Your task to perform on an android device: Open wifi settings Image 0: 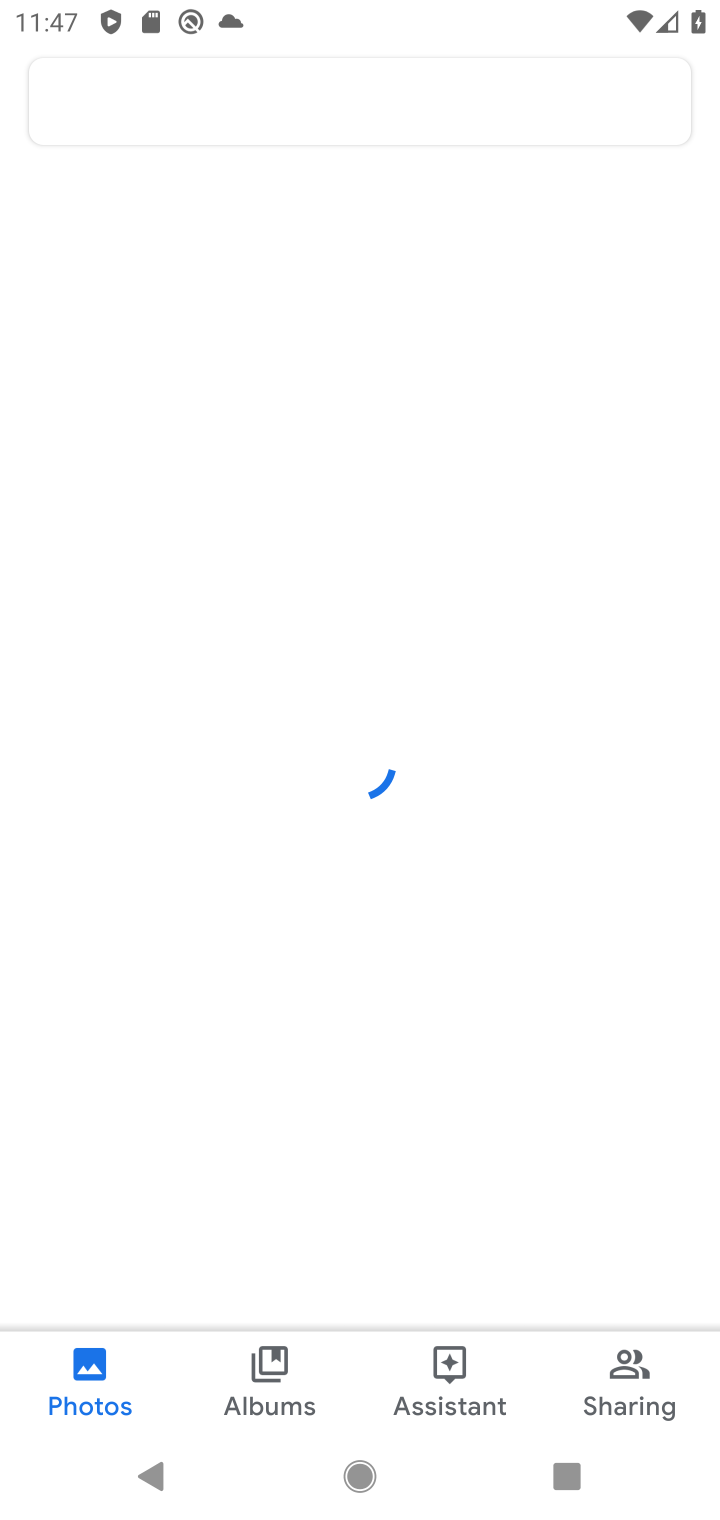
Step 0: press home button
Your task to perform on an android device: Open wifi settings Image 1: 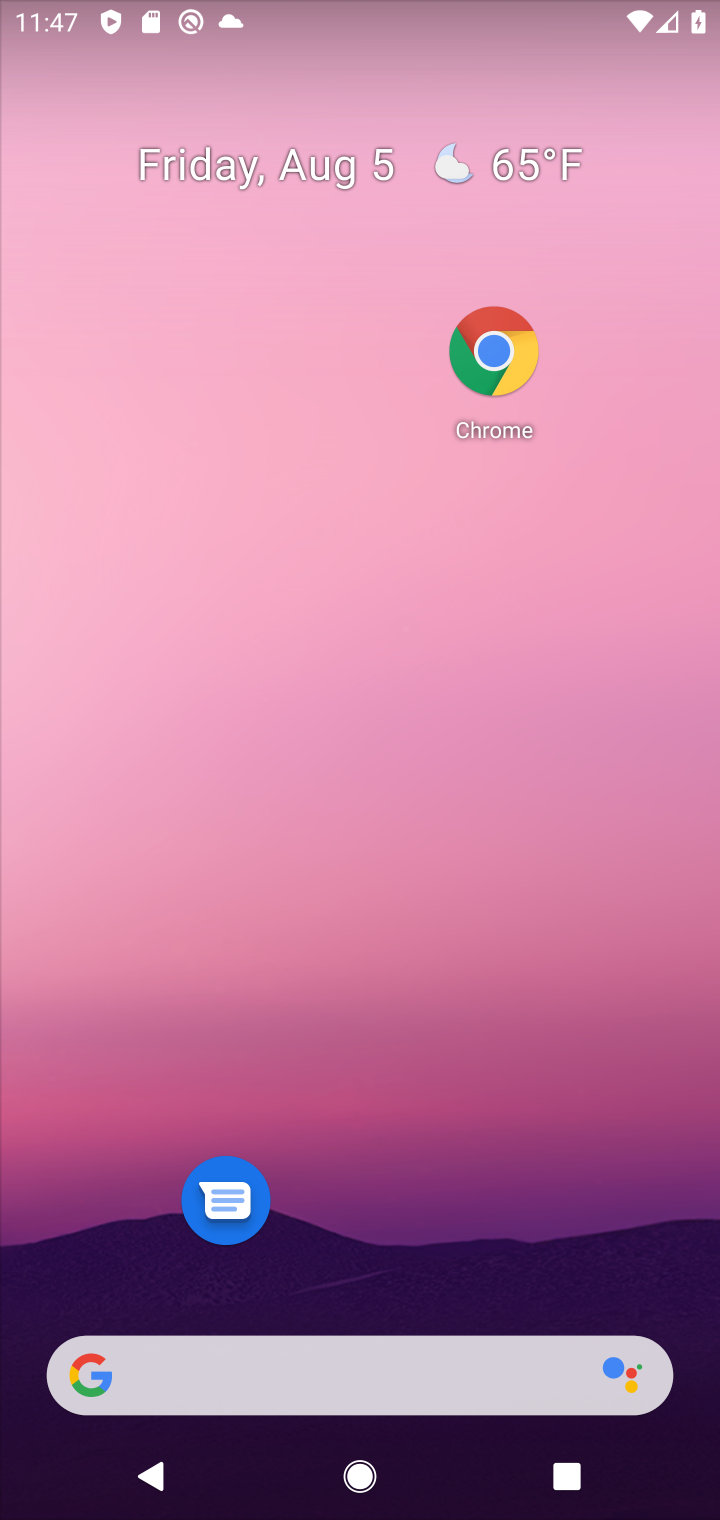
Step 1: drag from (406, 1181) to (505, 188)
Your task to perform on an android device: Open wifi settings Image 2: 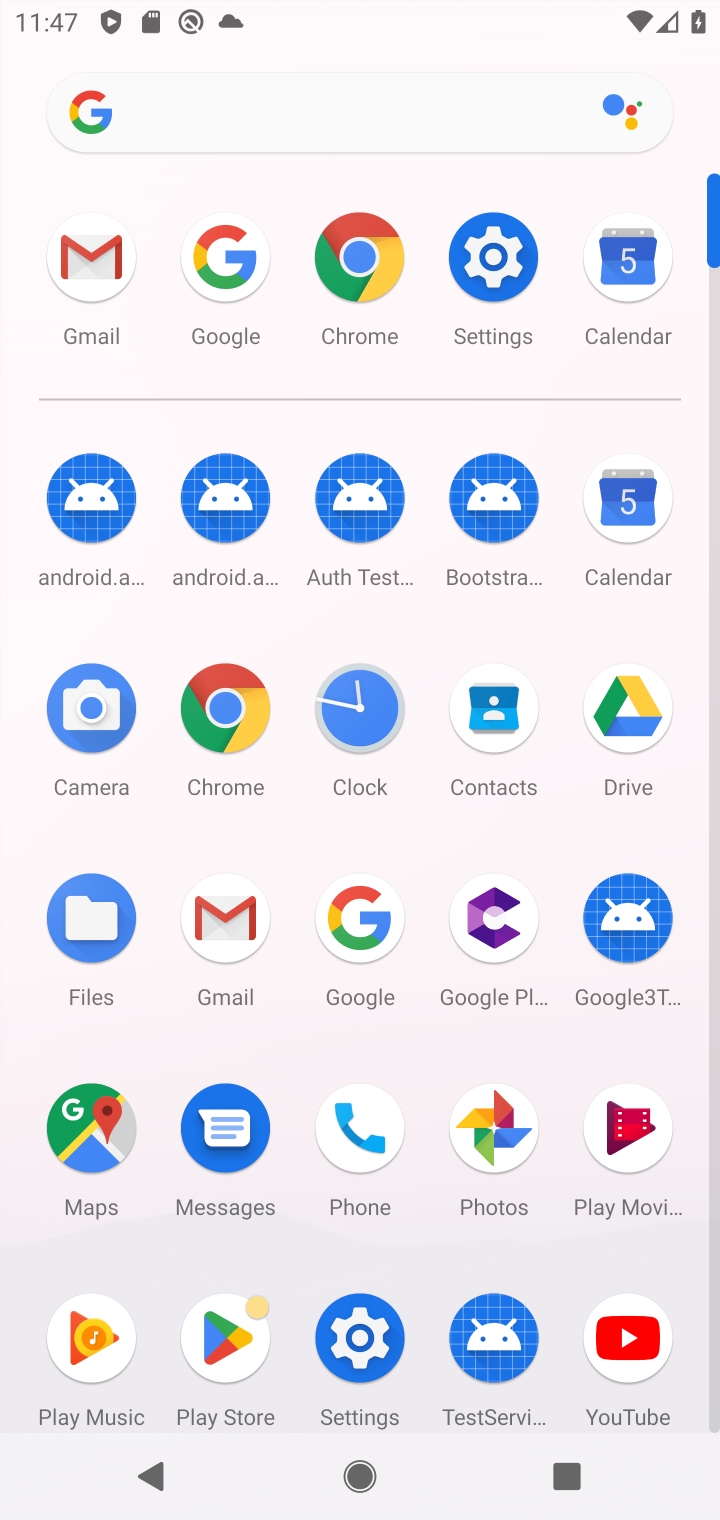
Step 2: click (526, 281)
Your task to perform on an android device: Open wifi settings Image 3: 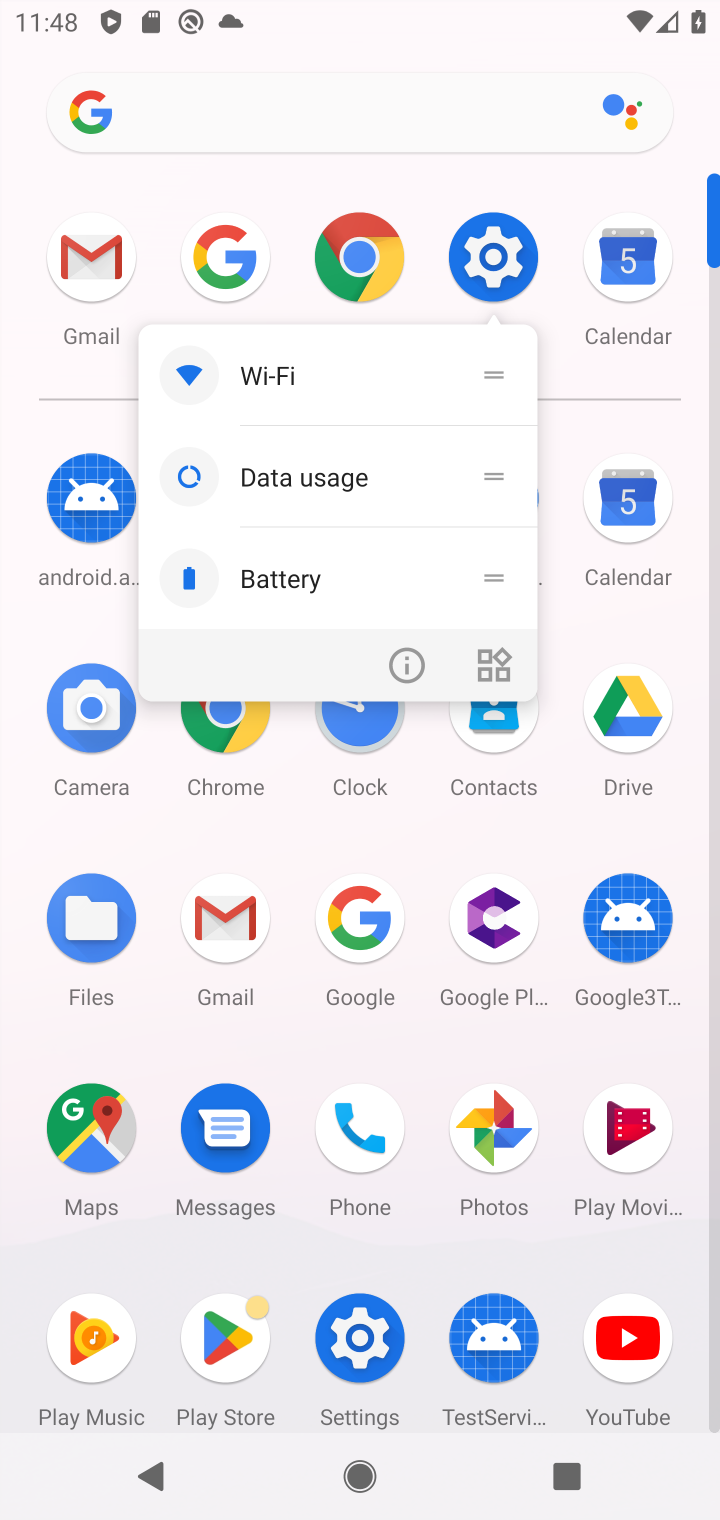
Step 3: click (512, 275)
Your task to perform on an android device: Open wifi settings Image 4: 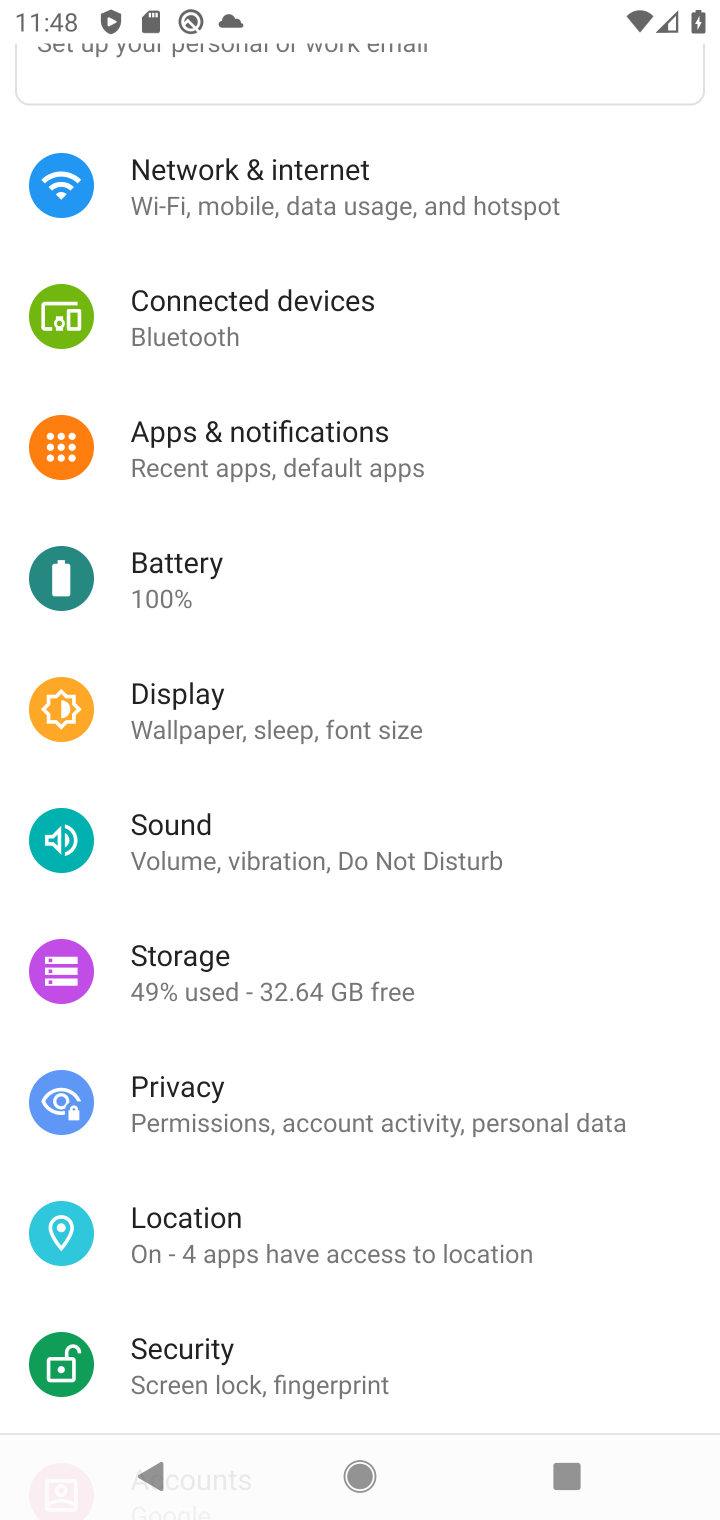
Step 4: drag from (425, 708) to (363, 1285)
Your task to perform on an android device: Open wifi settings Image 5: 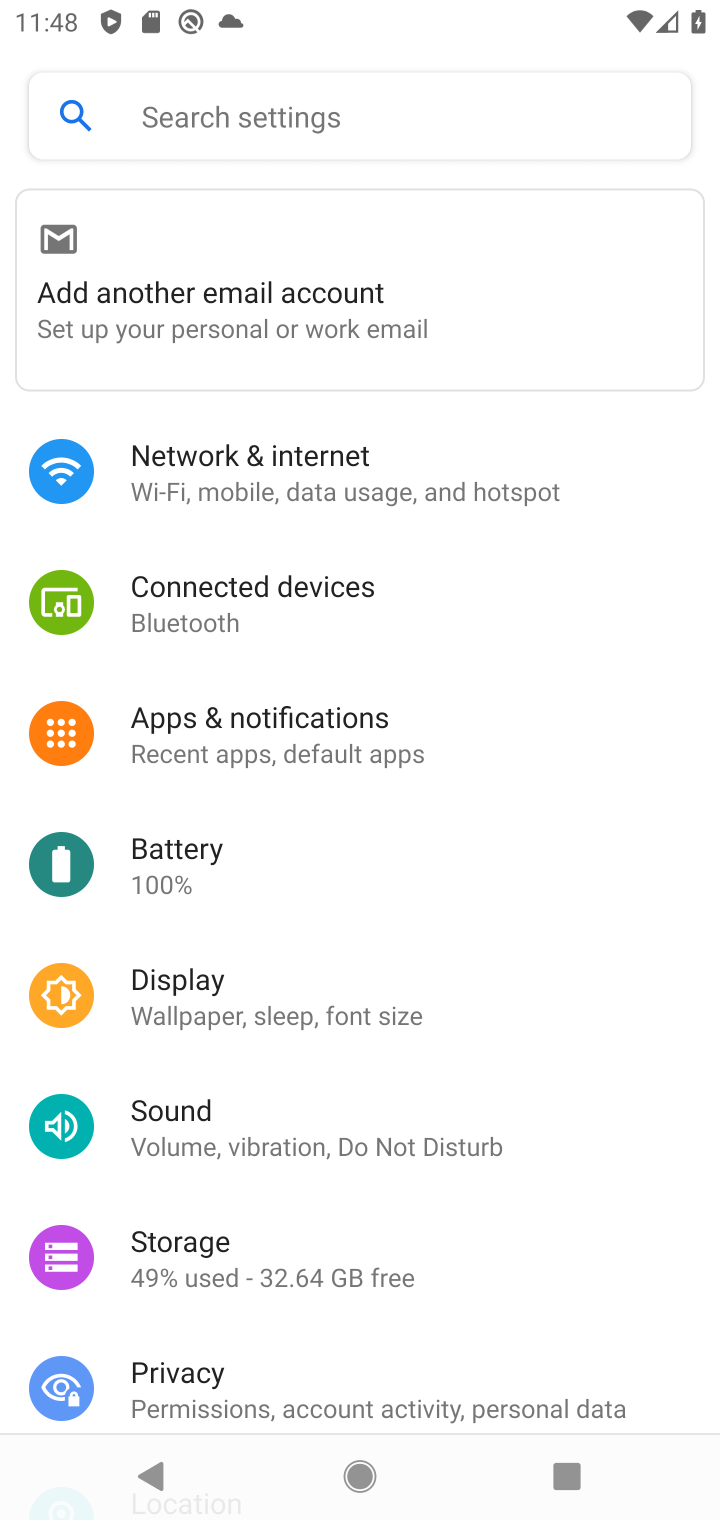
Step 5: click (415, 477)
Your task to perform on an android device: Open wifi settings Image 6: 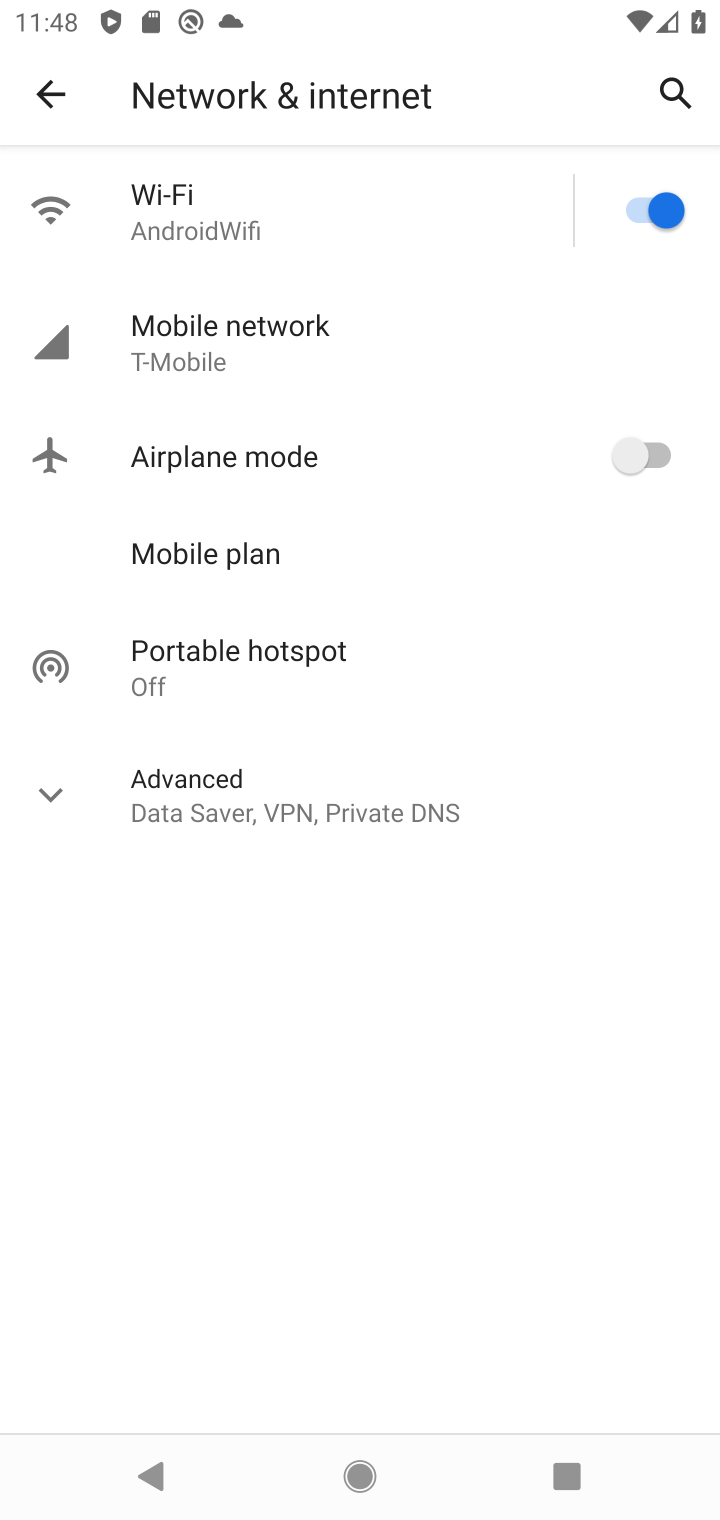
Step 6: click (342, 233)
Your task to perform on an android device: Open wifi settings Image 7: 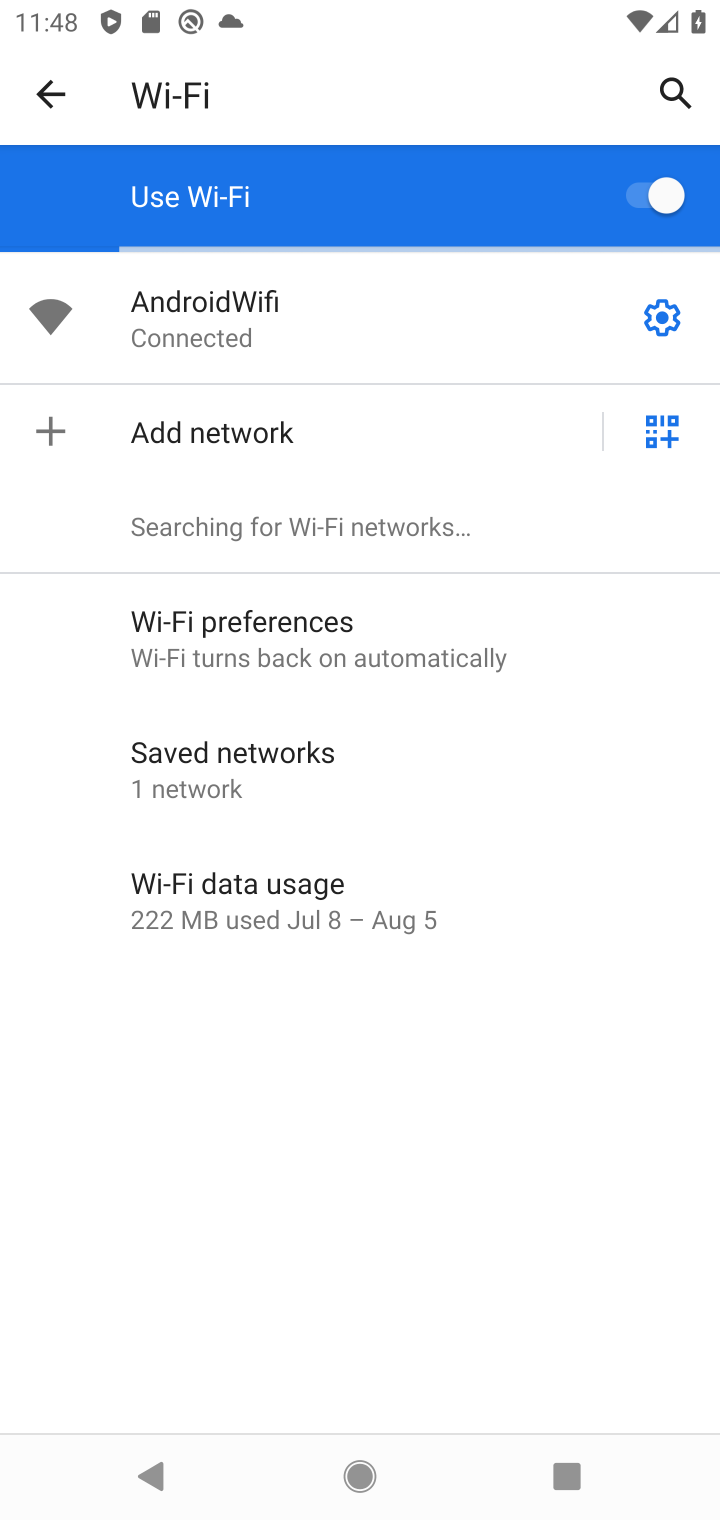
Step 7: task complete